Your task to perform on an android device: Do I have any events this weekend? Image 0: 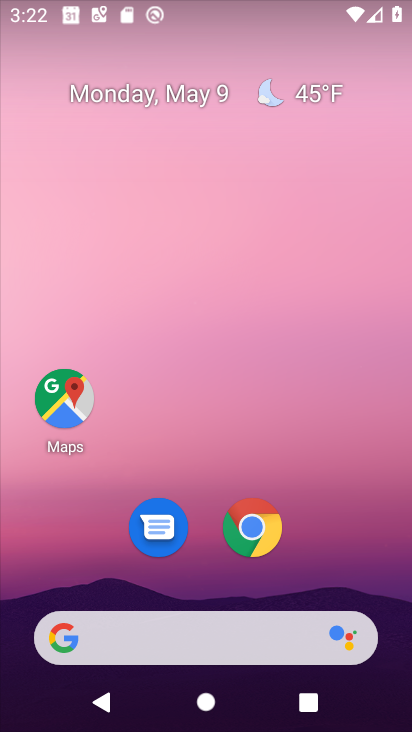
Step 0: drag from (339, 528) to (409, 428)
Your task to perform on an android device: Do I have any events this weekend? Image 1: 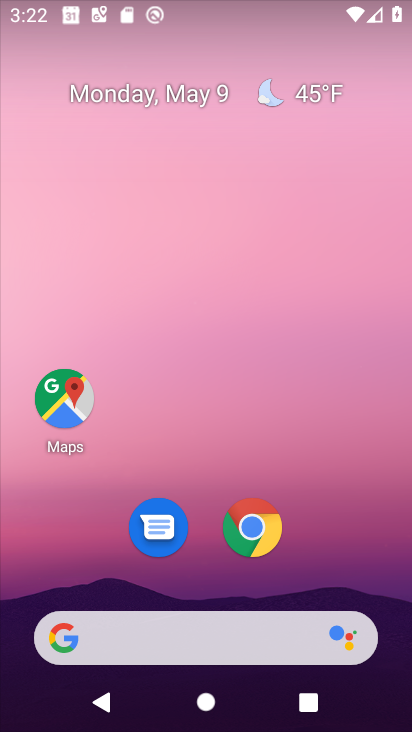
Step 1: drag from (314, 572) to (311, 145)
Your task to perform on an android device: Do I have any events this weekend? Image 2: 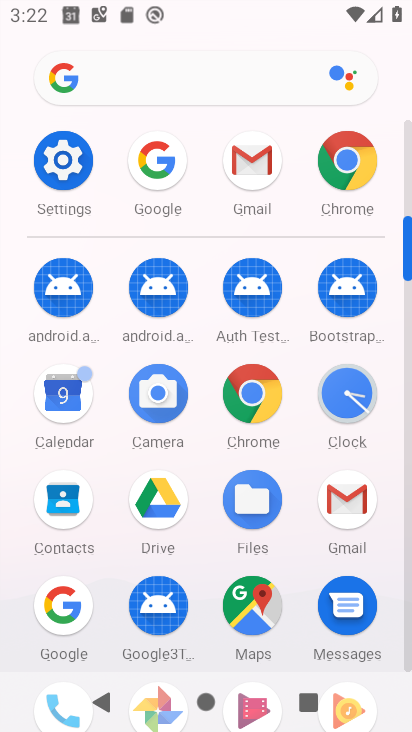
Step 2: click (78, 396)
Your task to perform on an android device: Do I have any events this weekend? Image 3: 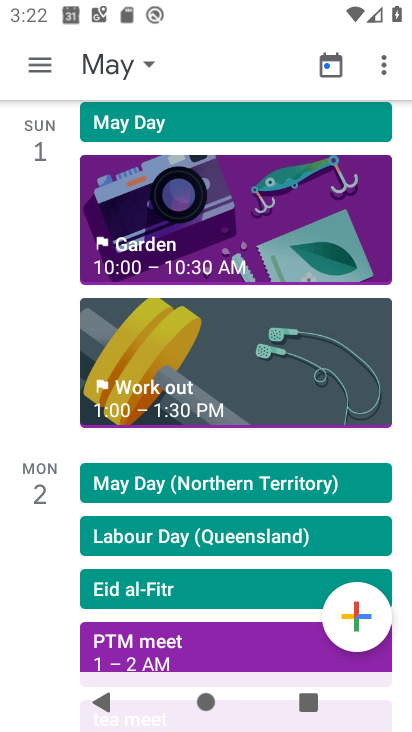
Step 3: task complete